Your task to perform on an android device: Search for Italian restaurants on Maps Image 0: 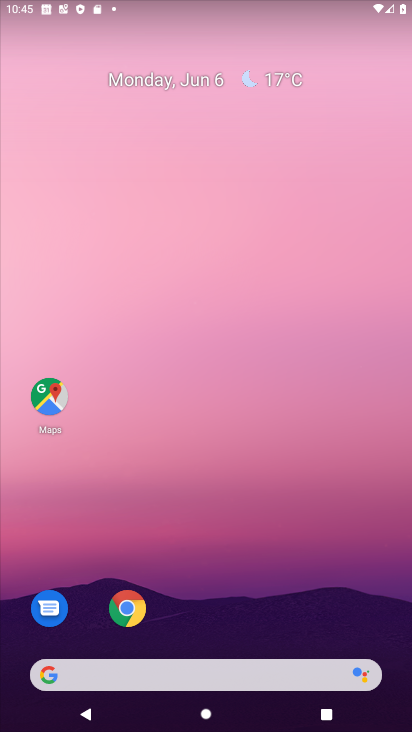
Step 0: click (44, 402)
Your task to perform on an android device: Search for Italian restaurants on Maps Image 1: 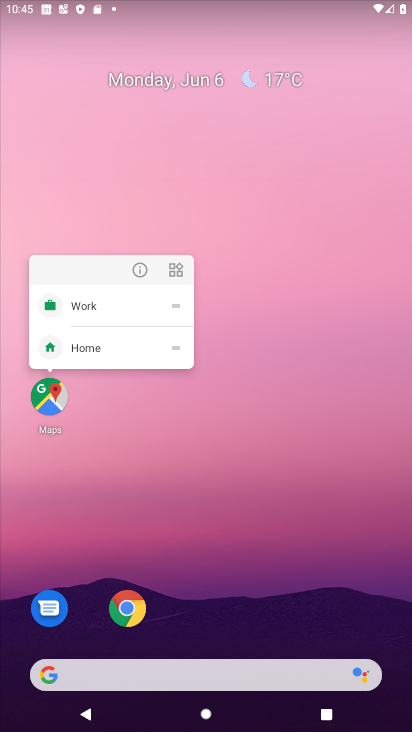
Step 1: click (44, 402)
Your task to perform on an android device: Search for Italian restaurants on Maps Image 2: 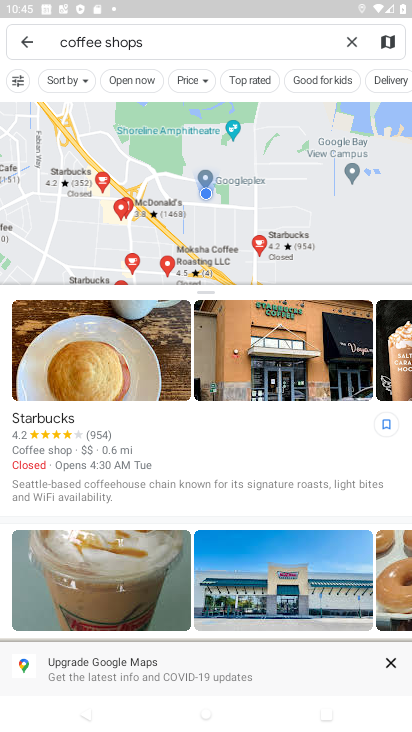
Step 2: click (347, 41)
Your task to perform on an android device: Search for Italian restaurants on Maps Image 3: 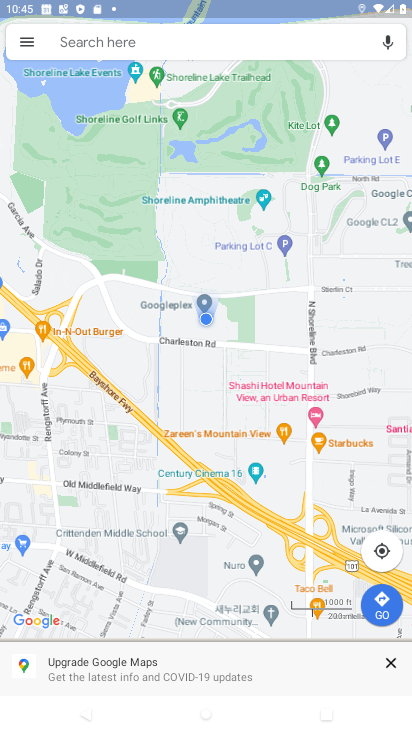
Step 3: click (212, 40)
Your task to perform on an android device: Search for Italian restaurants on Maps Image 4: 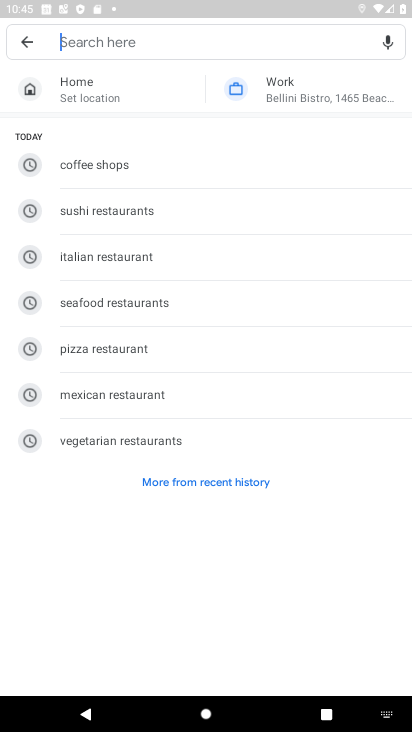
Step 4: click (180, 259)
Your task to perform on an android device: Search for Italian restaurants on Maps Image 5: 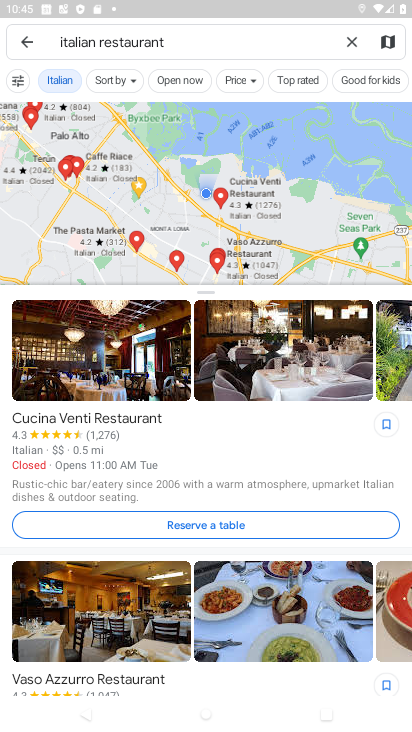
Step 5: task complete